Your task to perform on an android device: turn pop-ups off in chrome Image 0: 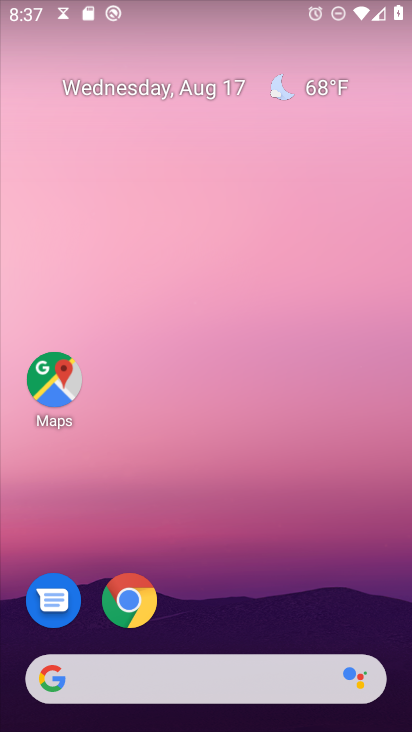
Step 0: press home button
Your task to perform on an android device: turn pop-ups off in chrome Image 1: 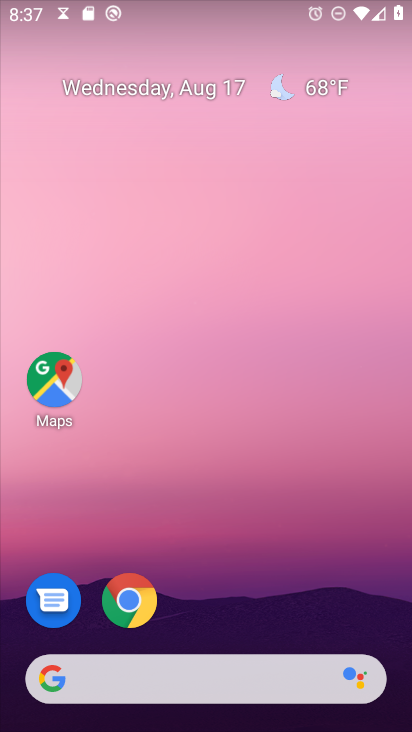
Step 1: click (129, 595)
Your task to perform on an android device: turn pop-ups off in chrome Image 2: 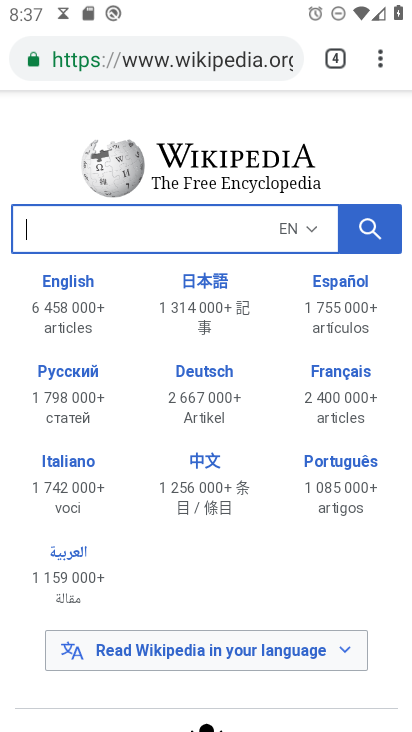
Step 2: drag from (379, 57) to (181, 628)
Your task to perform on an android device: turn pop-ups off in chrome Image 3: 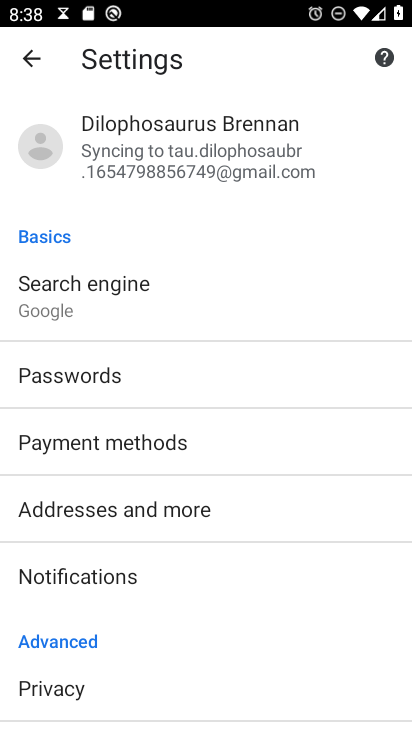
Step 3: drag from (142, 644) to (134, 293)
Your task to perform on an android device: turn pop-ups off in chrome Image 4: 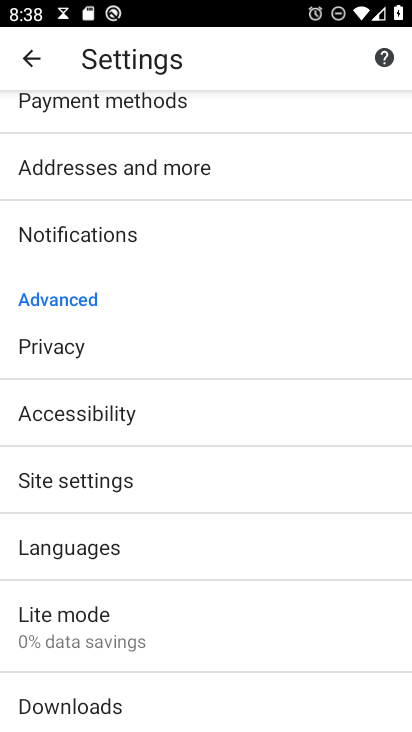
Step 4: click (109, 484)
Your task to perform on an android device: turn pop-ups off in chrome Image 5: 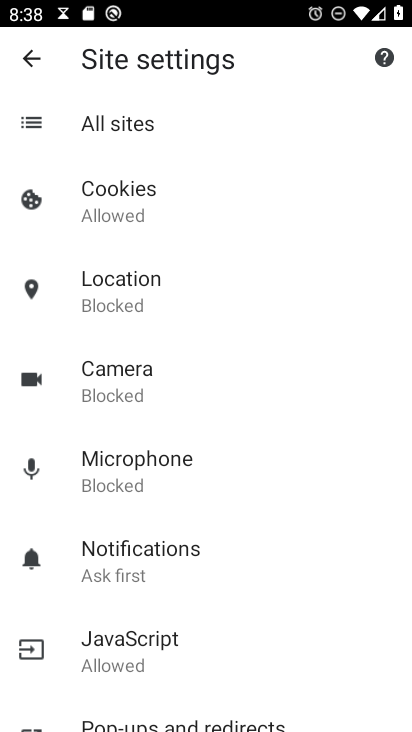
Step 5: click (146, 724)
Your task to perform on an android device: turn pop-ups off in chrome Image 6: 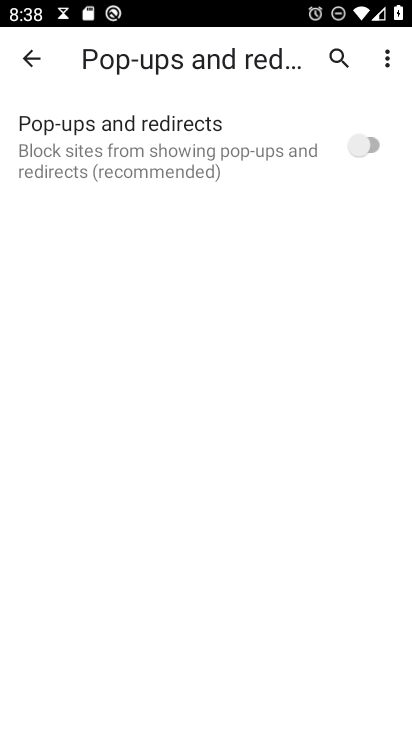
Step 6: task complete